Your task to perform on an android device: turn on translation in the chrome app Image 0: 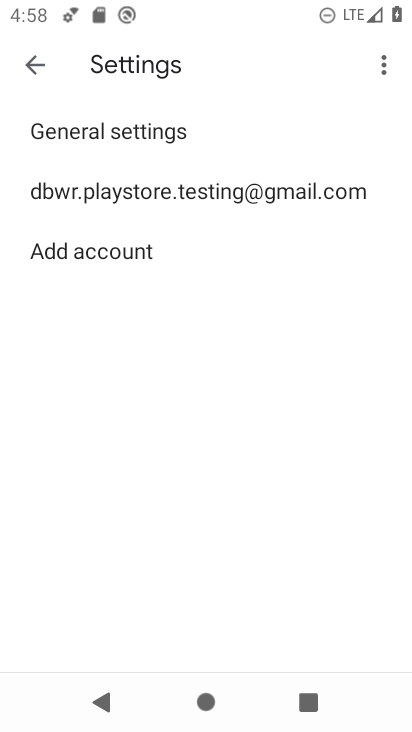
Step 0: press home button
Your task to perform on an android device: turn on translation in the chrome app Image 1: 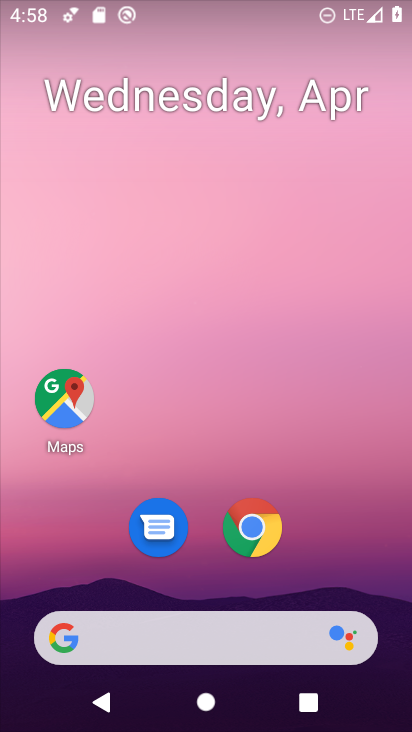
Step 1: click (260, 543)
Your task to perform on an android device: turn on translation in the chrome app Image 2: 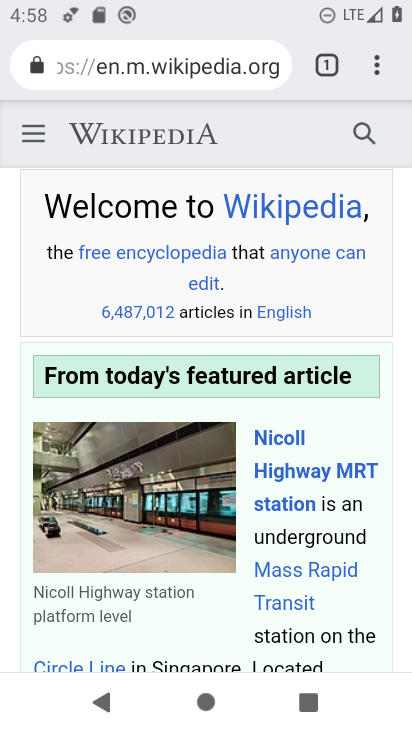
Step 2: click (379, 71)
Your task to perform on an android device: turn on translation in the chrome app Image 3: 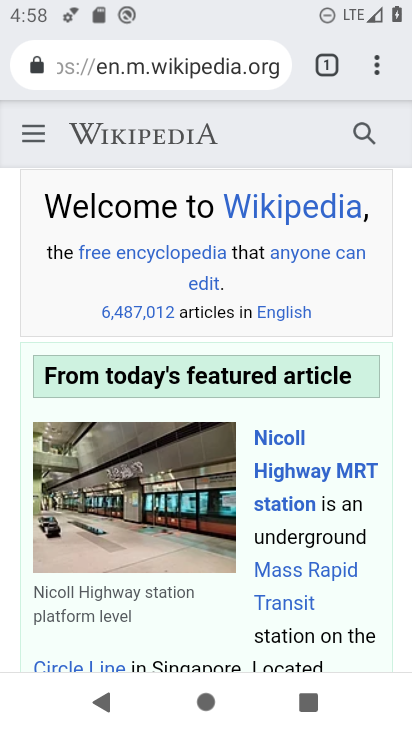
Step 3: click (379, 68)
Your task to perform on an android device: turn on translation in the chrome app Image 4: 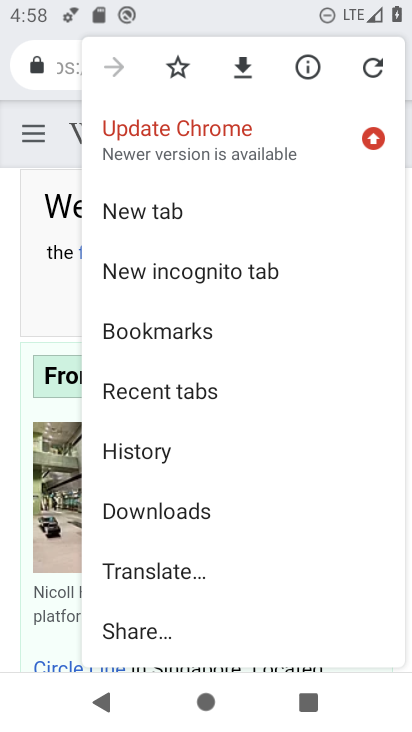
Step 4: drag from (242, 499) to (251, 134)
Your task to perform on an android device: turn on translation in the chrome app Image 5: 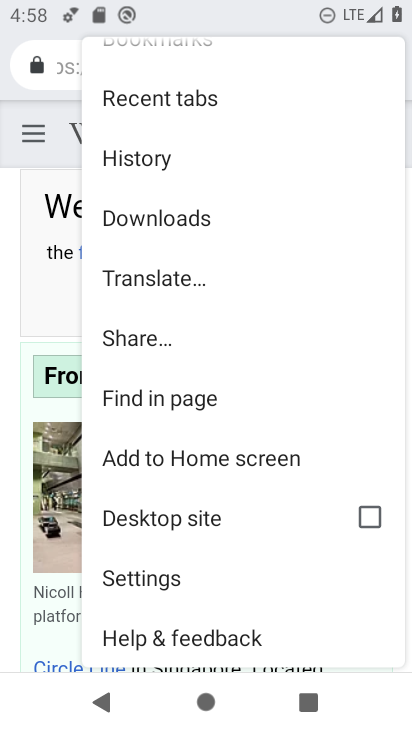
Step 5: click (138, 579)
Your task to perform on an android device: turn on translation in the chrome app Image 6: 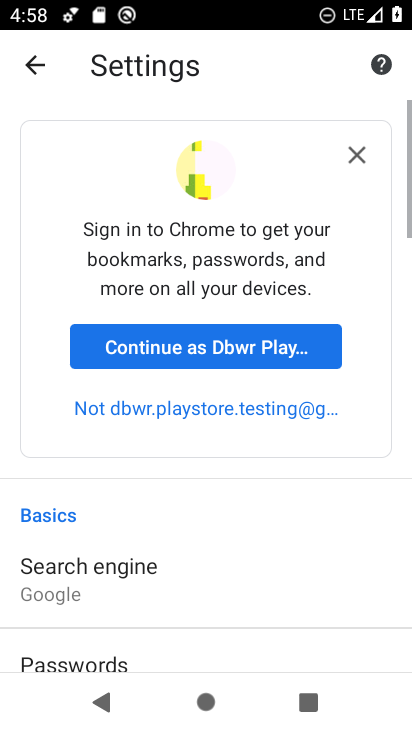
Step 6: drag from (187, 561) to (173, 163)
Your task to perform on an android device: turn on translation in the chrome app Image 7: 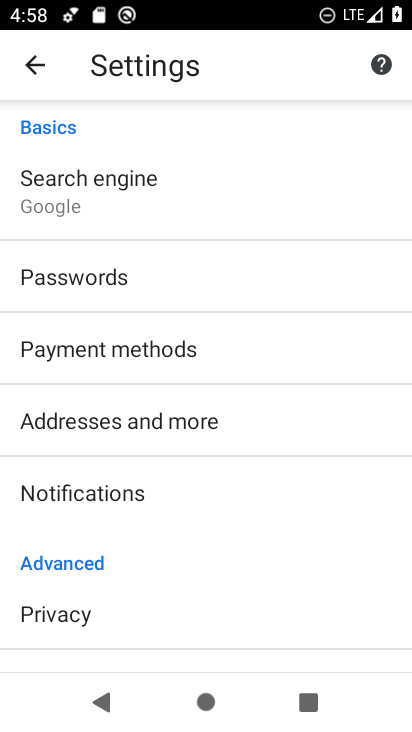
Step 7: drag from (224, 524) to (203, 185)
Your task to perform on an android device: turn on translation in the chrome app Image 8: 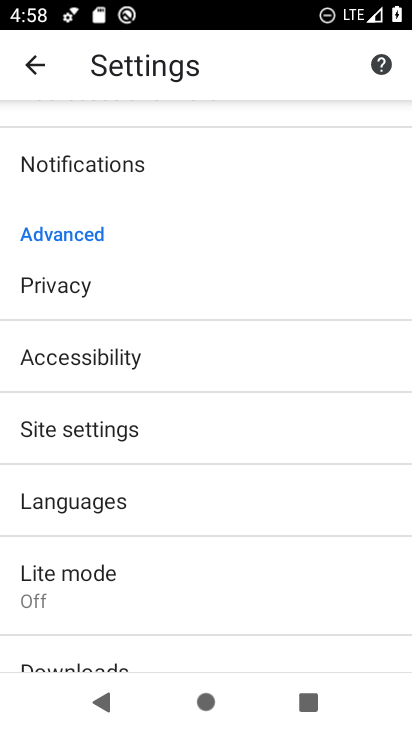
Step 8: click (69, 499)
Your task to perform on an android device: turn on translation in the chrome app Image 9: 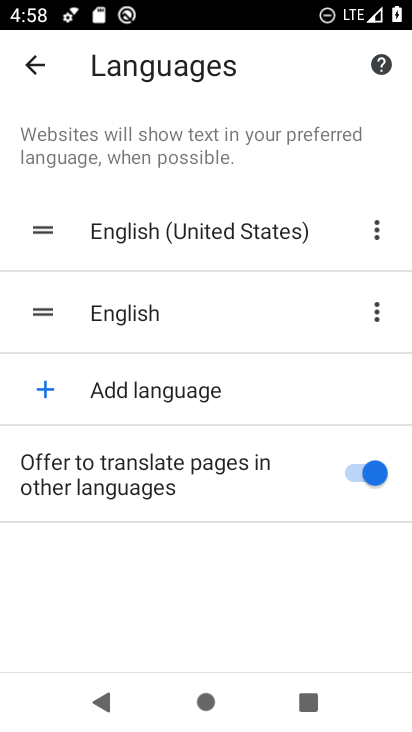
Step 9: task complete